Your task to perform on an android device: Open Yahoo.com Image 0: 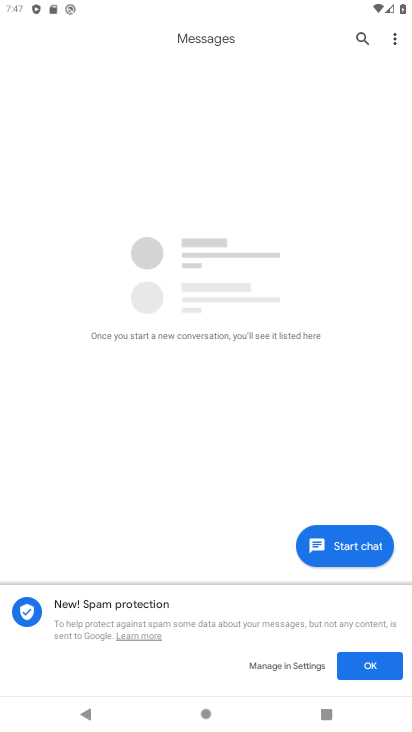
Step 0: press home button
Your task to perform on an android device: Open Yahoo.com Image 1: 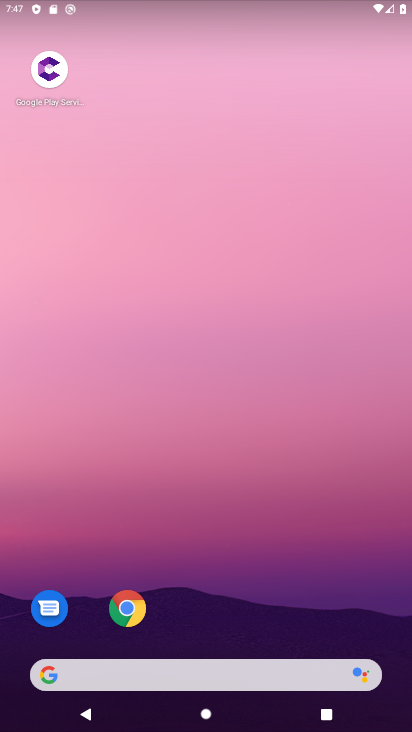
Step 1: click (84, 680)
Your task to perform on an android device: Open Yahoo.com Image 2: 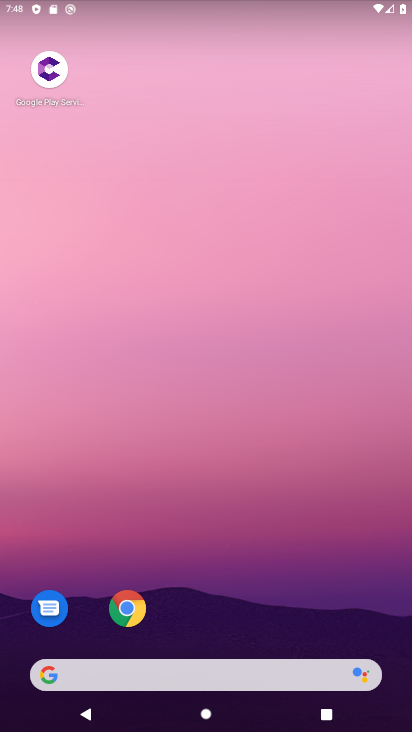
Step 2: click (118, 659)
Your task to perform on an android device: Open Yahoo.com Image 3: 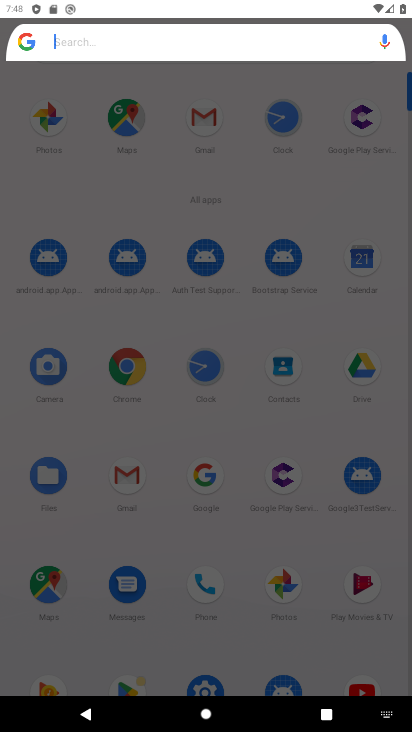
Step 3: type "Yahoo.com"
Your task to perform on an android device: Open Yahoo.com Image 4: 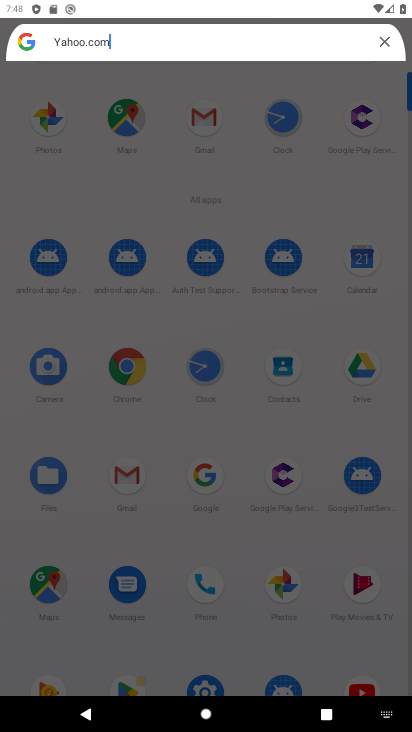
Step 4: type ""
Your task to perform on an android device: Open Yahoo.com Image 5: 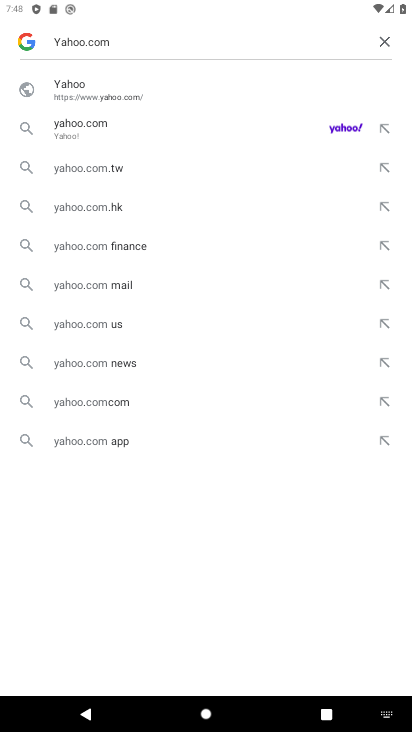
Step 5: task complete